Your task to perform on an android device: turn vacation reply on in the gmail app Image 0: 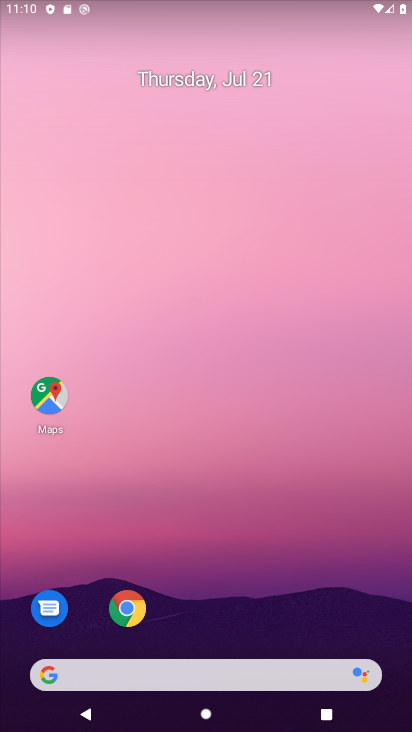
Step 0: drag from (185, 647) to (192, 25)
Your task to perform on an android device: turn vacation reply on in the gmail app Image 1: 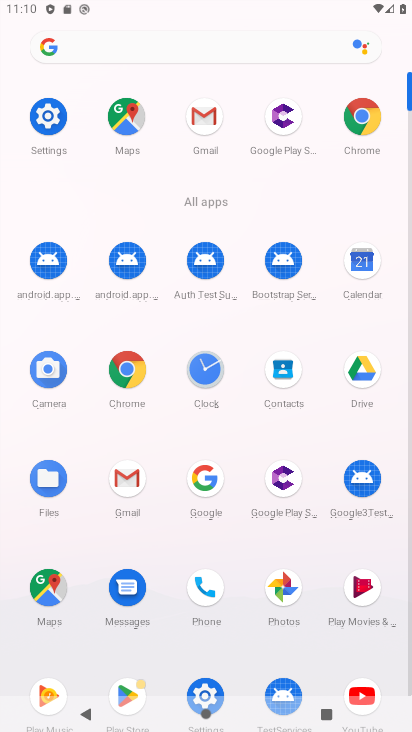
Step 1: click (134, 481)
Your task to perform on an android device: turn vacation reply on in the gmail app Image 2: 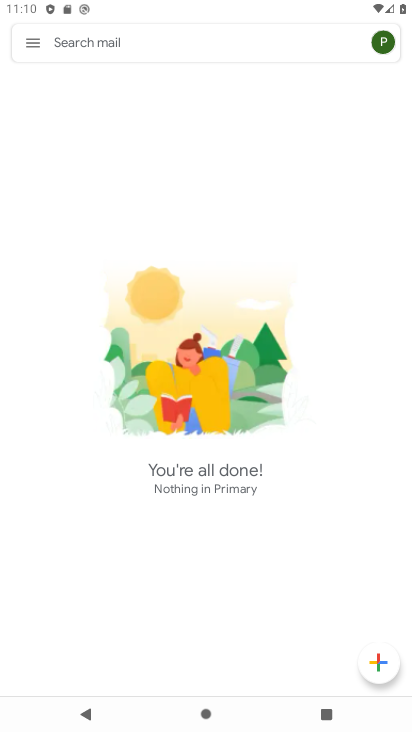
Step 2: click (24, 58)
Your task to perform on an android device: turn vacation reply on in the gmail app Image 3: 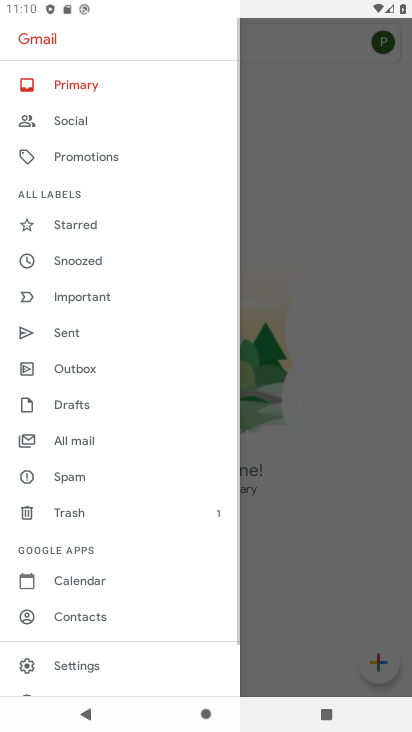
Step 3: drag from (86, 553) to (90, 292)
Your task to perform on an android device: turn vacation reply on in the gmail app Image 4: 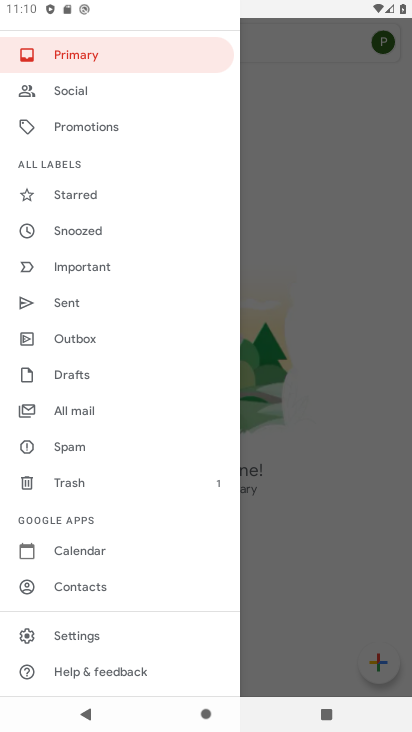
Step 4: click (83, 631)
Your task to perform on an android device: turn vacation reply on in the gmail app Image 5: 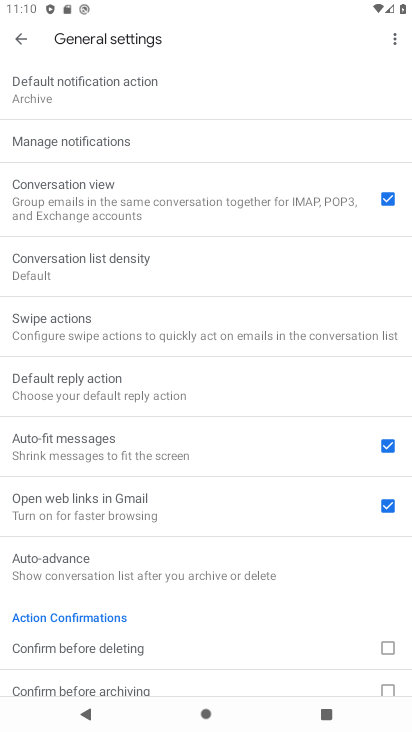
Step 5: drag from (140, 525) to (177, 234)
Your task to perform on an android device: turn vacation reply on in the gmail app Image 6: 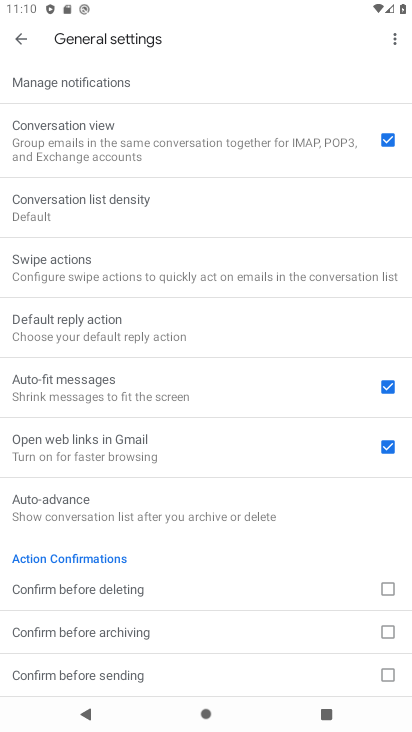
Step 6: click (20, 26)
Your task to perform on an android device: turn vacation reply on in the gmail app Image 7: 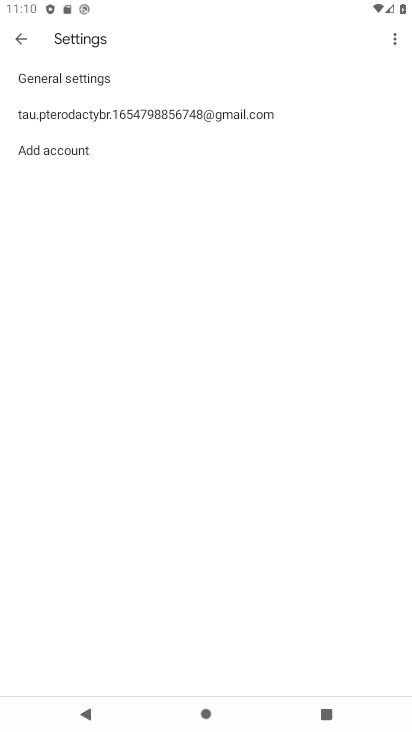
Step 7: click (128, 114)
Your task to perform on an android device: turn vacation reply on in the gmail app Image 8: 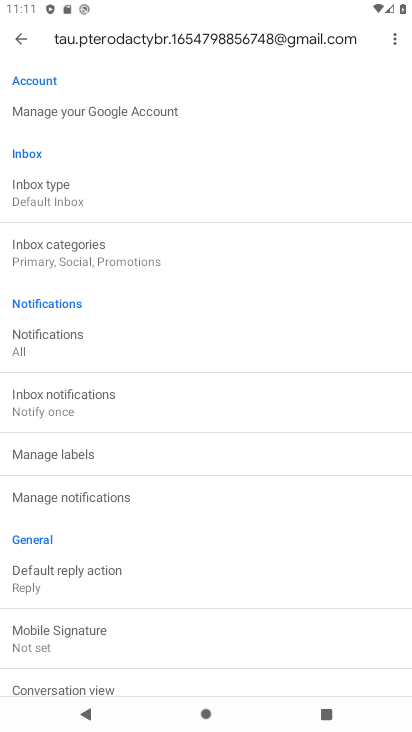
Step 8: drag from (103, 578) to (155, 210)
Your task to perform on an android device: turn vacation reply on in the gmail app Image 9: 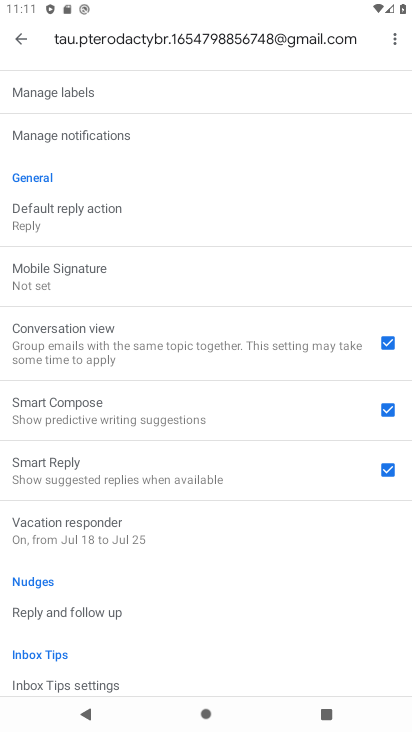
Step 9: click (118, 534)
Your task to perform on an android device: turn vacation reply on in the gmail app Image 10: 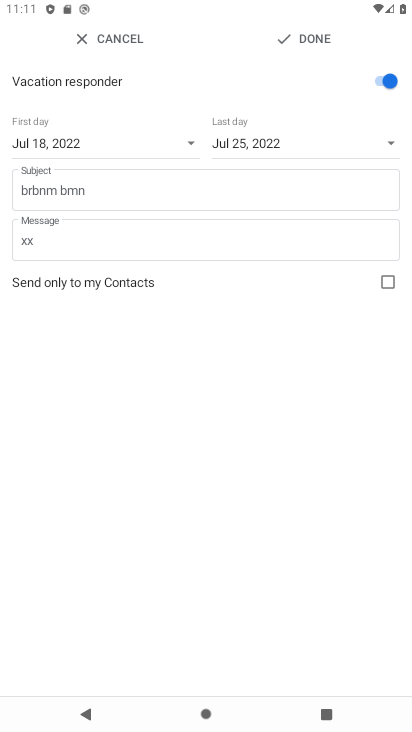
Step 10: task complete